Your task to perform on an android device: turn off translation in the chrome app Image 0: 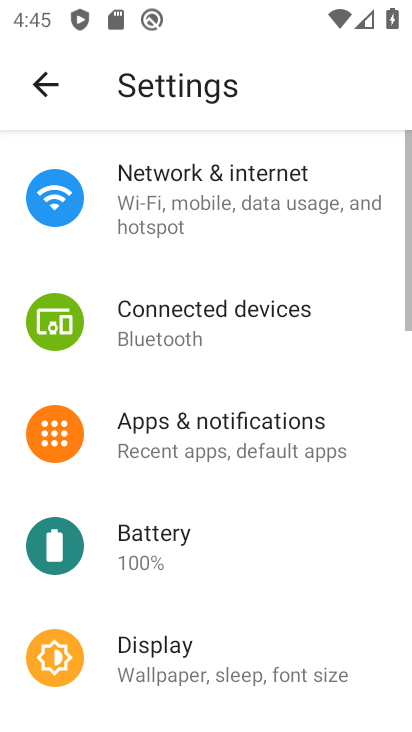
Step 0: press home button
Your task to perform on an android device: turn off translation in the chrome app Image 1: 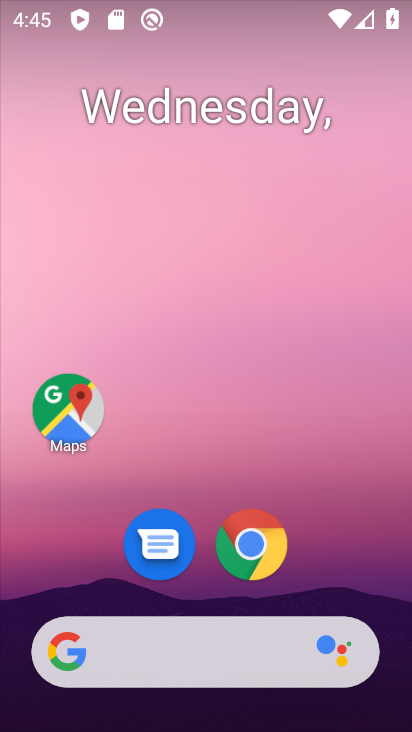
Step 1: click (248, 557)
Your task to perform on an android device: turn off translation in the chrome app Image 2: 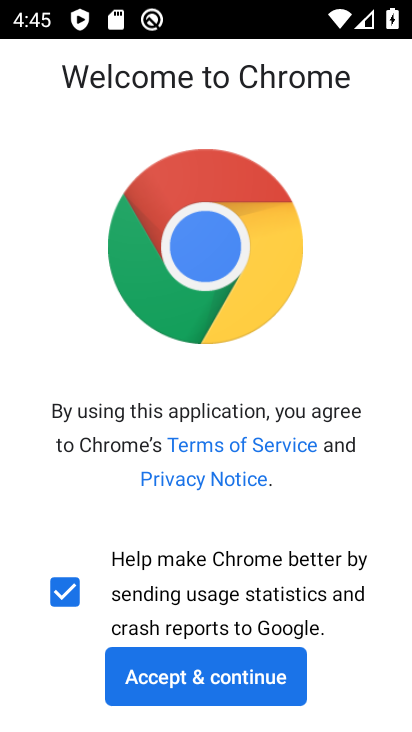
Step 2: click (254, 655)
Your task to perform on an android device: turn off translation in the chrome app Image 3: 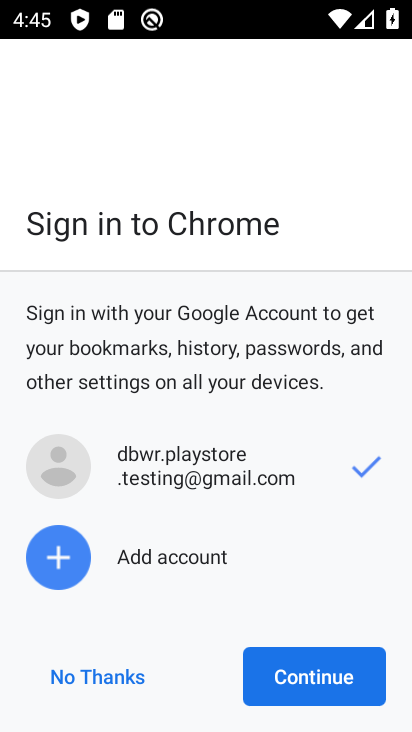
Step 3: click (332, 681)
Your task to perform on an android device: turn off translation in the chrome app Image 4: 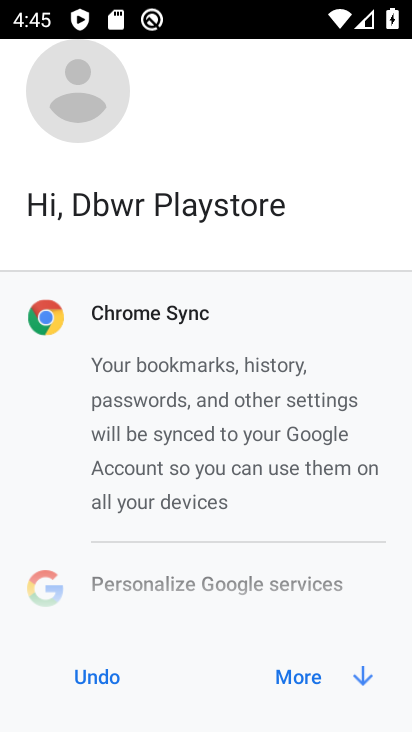
Step 4: click (322, 665)
Your task to perform on an android device: turn off translation in the chrome app Image 5: 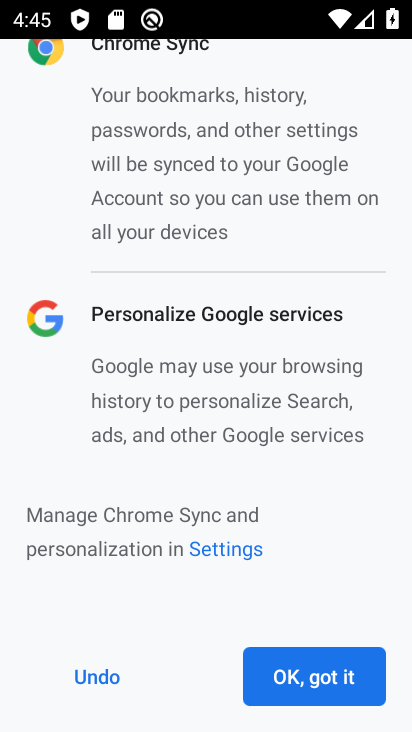
Step 5: click (322, 664)
Your task to perform on an android device: turn off translation in the chrome app Image 6: 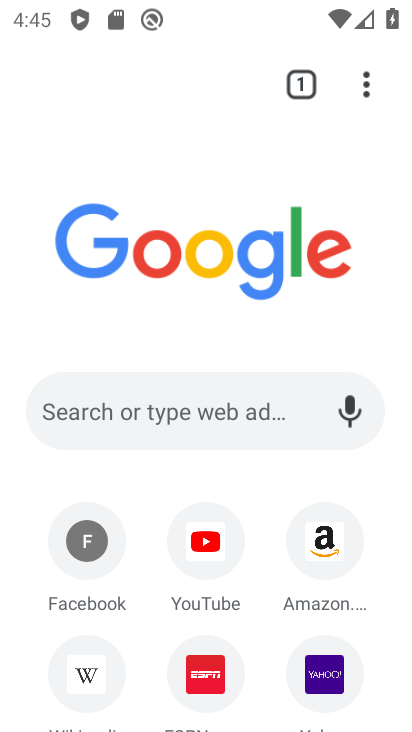
Step 6: click (369, 93)
Your task to perform on an android device: turn off translation in the chrome app Image 7: 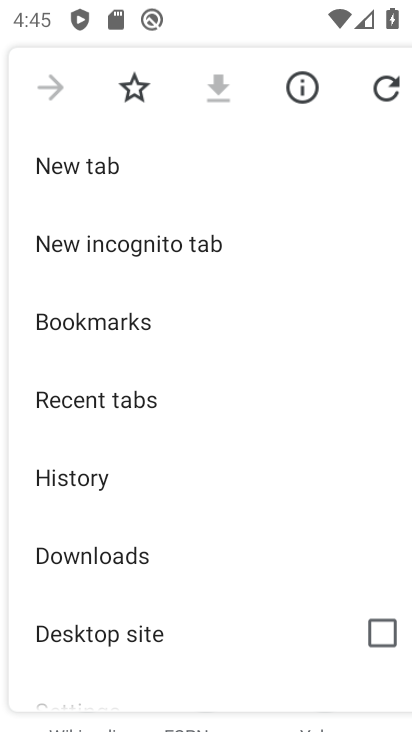
Step 7: drag from (216, 582) to (192, 174)
Your task to perform on an android device: turn off translation in the chrome app Image 8: 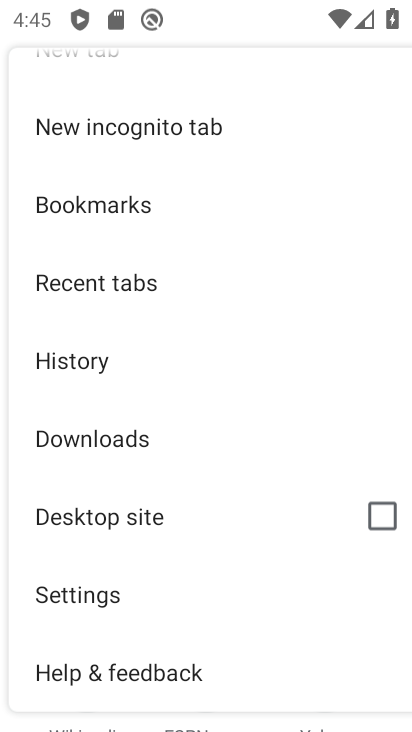
Step 8: click (122, 608)
Your task to perform on an android device: turn off translation in the chrome app Image 9: 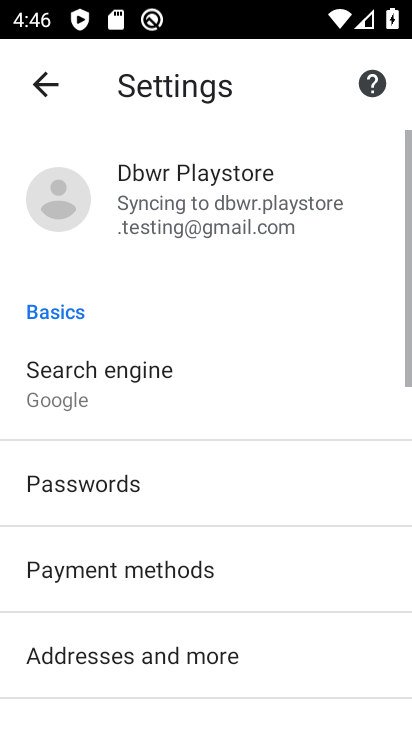
Step 9: drag from (129, 594) to (105, 109)
Your task to perform on an android device: turn off translation in the chrome app Image 10: 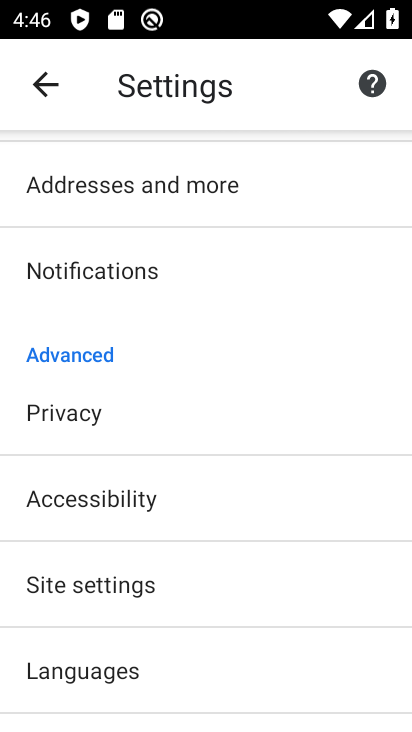
Step 10: click (141, 677)
Your task to perform on an android device: turn off translation in the chrome app Image 11: 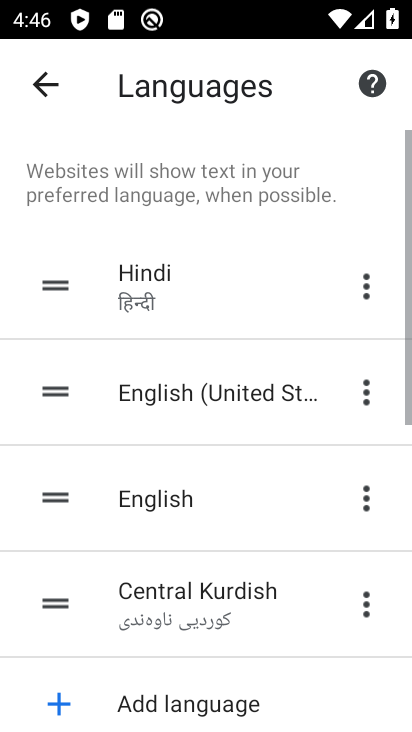
Step 11: task complete